Your task to perform on an android device: Open privacy settings Image 0: 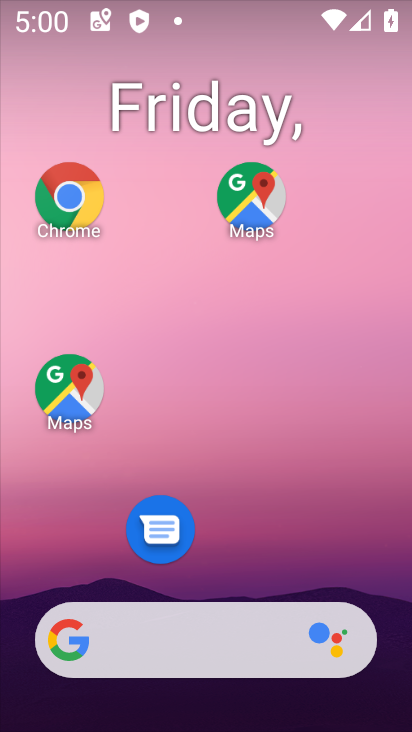
Step 0: drag from (249, 554) to (255, 88)
Your task to perform on an android device: Open privacy settings Image 1: 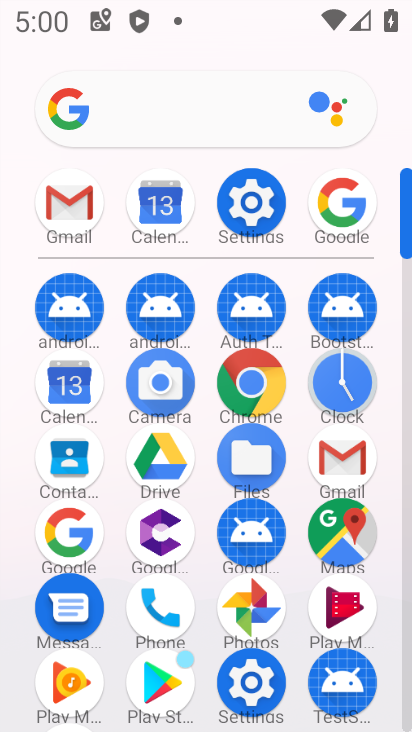
Step 1: click (247, 211)
Your task to perform on an android device: Open privacy settings Image 2: 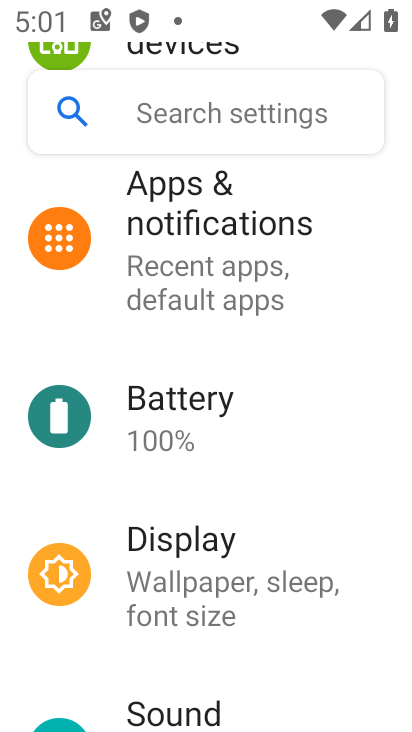
Step 2: drag from (319, 321) to (263, 675)
Your task to perform on an android device: Open privacy settings Image 3: 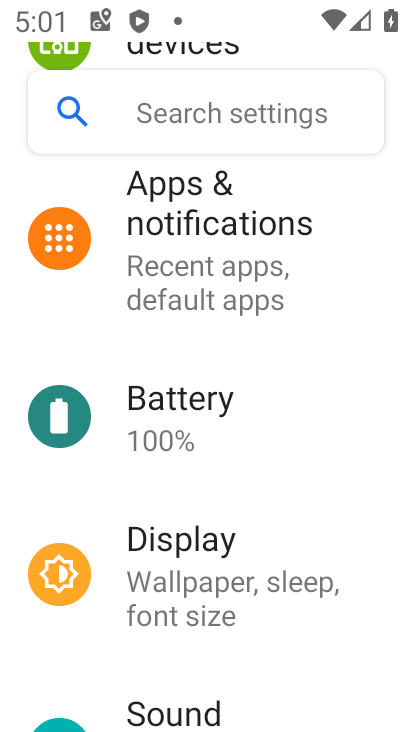
Step 3: drag from (222, 551) to (214, 308)
Your task to perform on an android device: Open privacy settings Image 4: 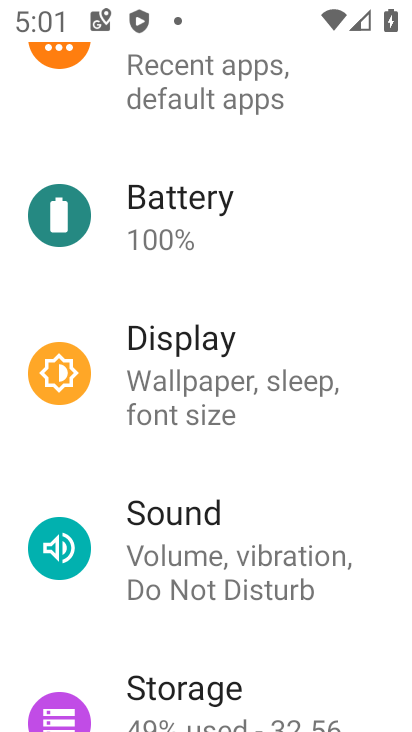
Step 4: drag from (219, 612) to (280, 307)
Your task to perform on an android device: Open privacy settings Image 5: 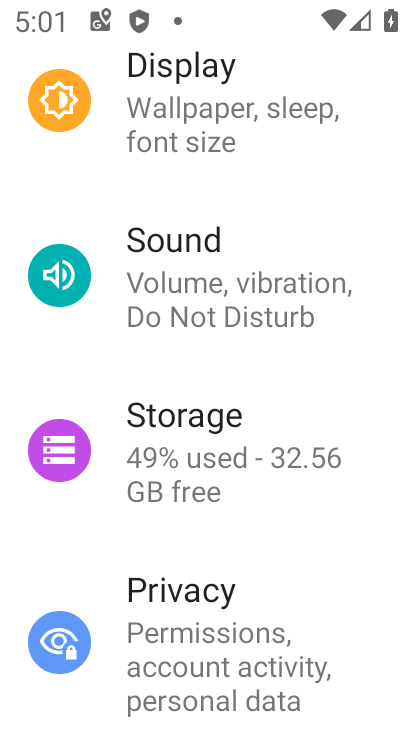
Step 5: click (196, 615)
Your task to perform on an android device: Open privacy settings Image 6: 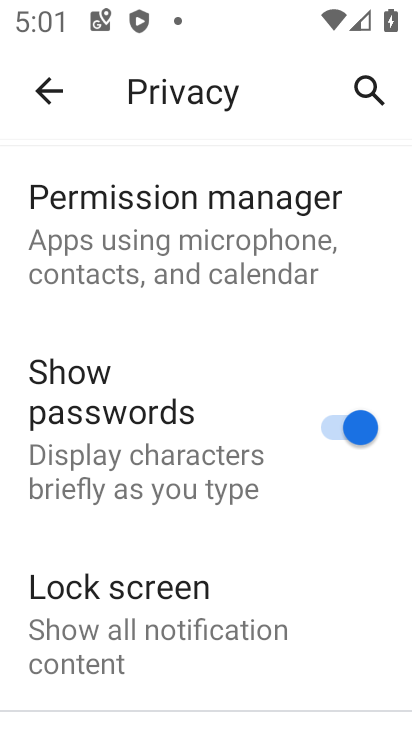
Step 6: task complete